Your task to perform on an android device: Open Chrome and go to settings Image 0: 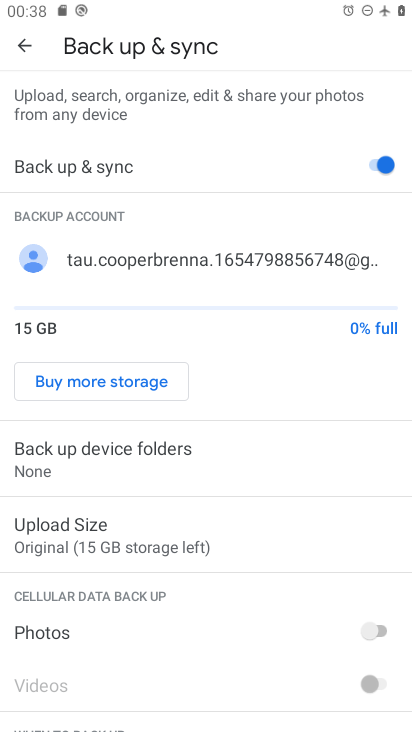
Step 0: press home button
Your task to perform on an android device: Open Chrome and go to settings Image 1: 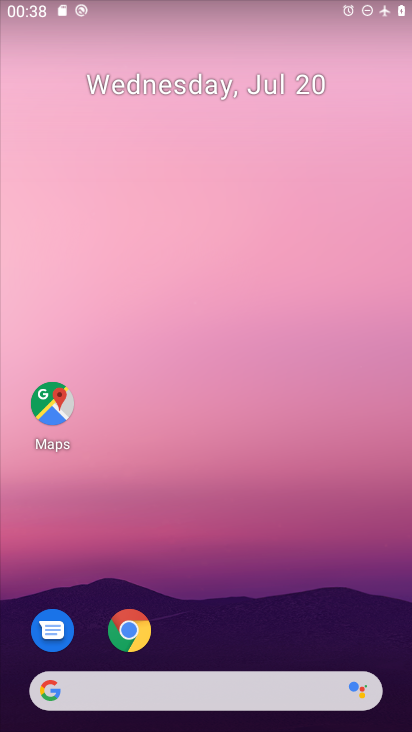
Step 1: click (144, 640)
Your task to perform on an android device: Open Chrome and go to settings Image 2: 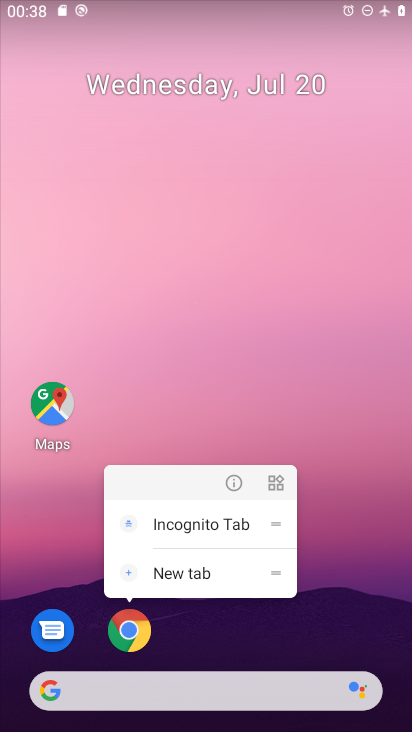
Step 2: click (147, 640)
Your task to perform on an android device: Open Chrome and go to settings Image 3: 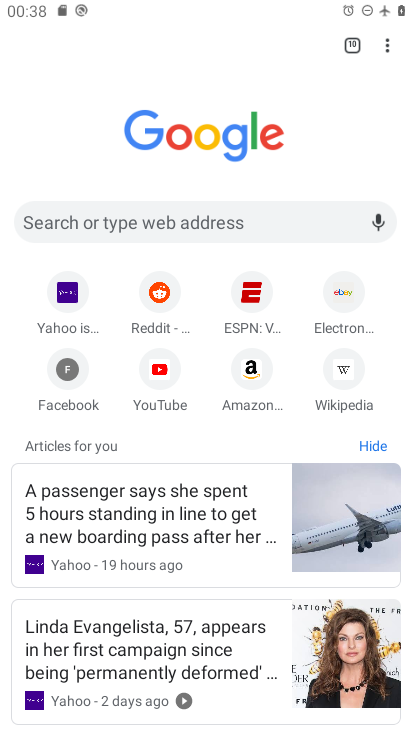
Step 3: click (385, 46)
Your task to perform on an android device: Open Chrome and go to settings Image 4: 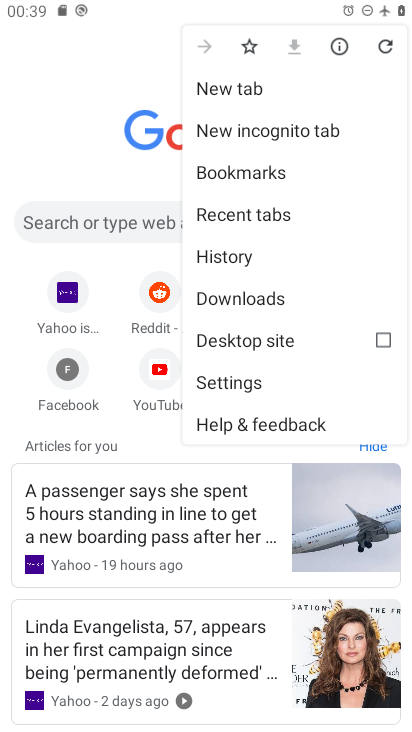
Step 4: click (248, 387)
Your task to perform on an android device: Open Chrome and go to settings Image 5: 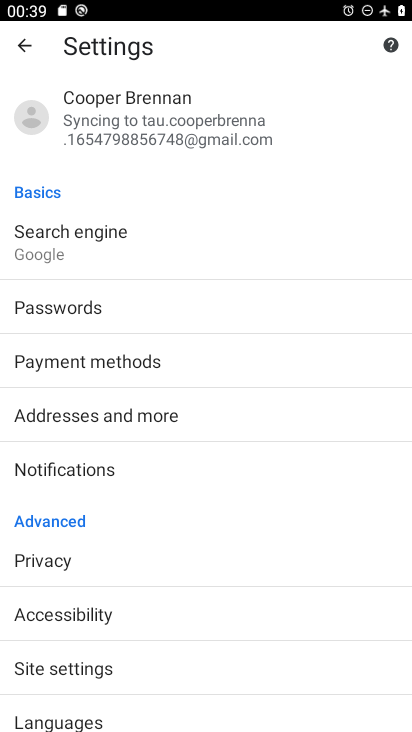
Step 5: task complete